Your task to perform on an android device: star an email in the gmail app Image 0: 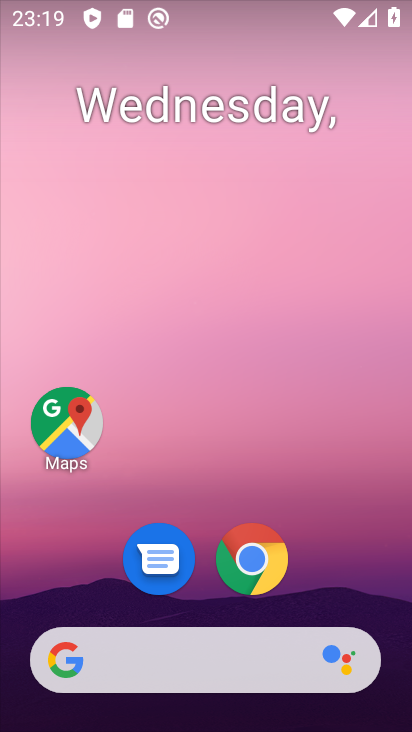
Step 0: drag from (198, 563) to (187, 195)
Your task to perform on an android device: star an email in the gmail app Image 1: 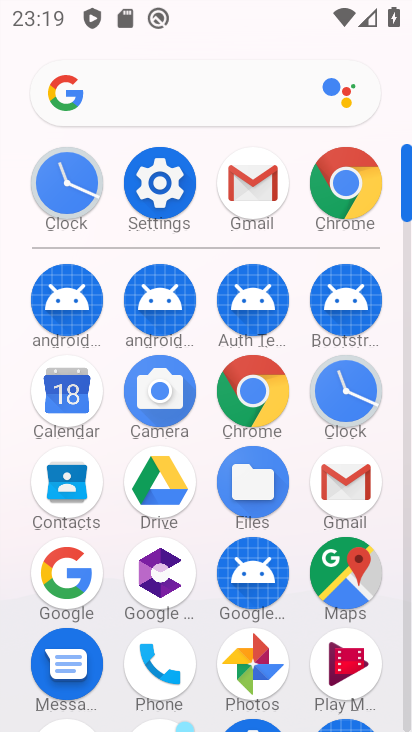
Step 1: click (347, 481)
Your task to perform on an android device: star an email in the gmail app Image 2: 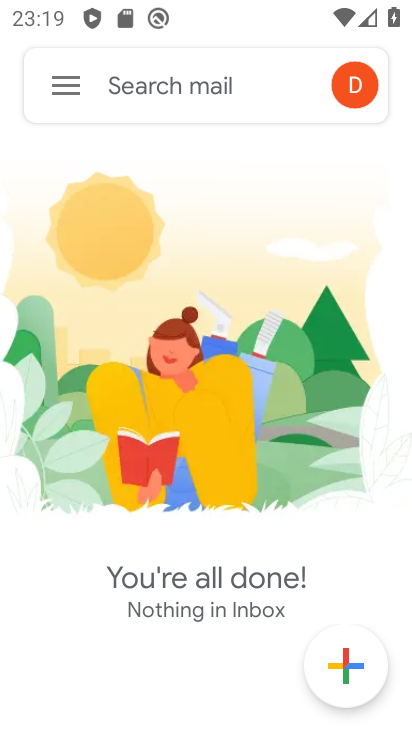
Step 2: click (63, 85)
Your task to perform on an android device: star an email in the gmail app Image 3: 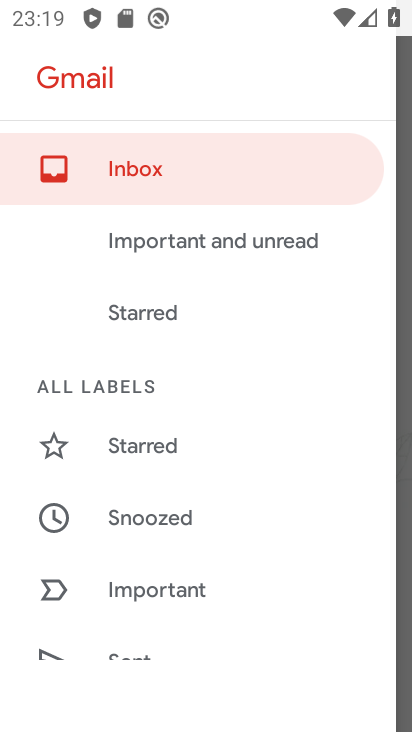
Step 3: drag from (142, 603) to (134, 259)
Your task to perform on an android device: star an email in the gmail app Image 4: 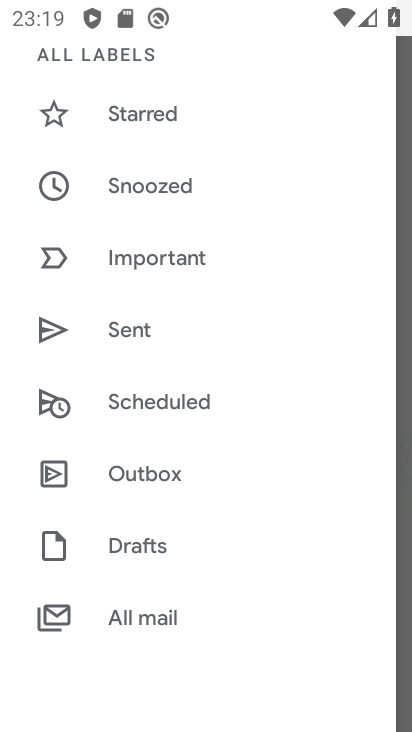
Step 4: click (140, 612)
Your task to perform on an android device: star an email in the gmail app Image 5: 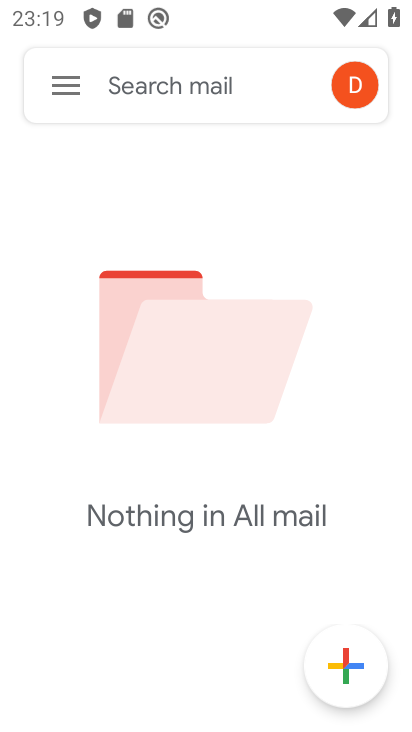
Step 5: task complete